Your task to perform on an android device: Search for sushi restaurants on Maps Image 0: 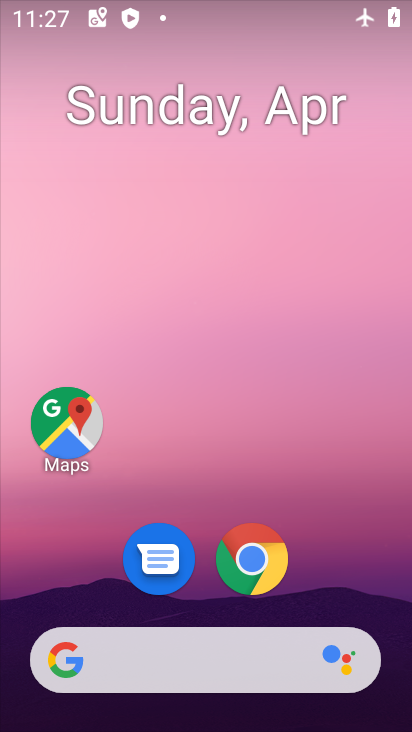
Step 0: drag from (319, 535) to (298, 107)
Your task to perform on an android device: Search for sushi restaurants on Maps Image 1: 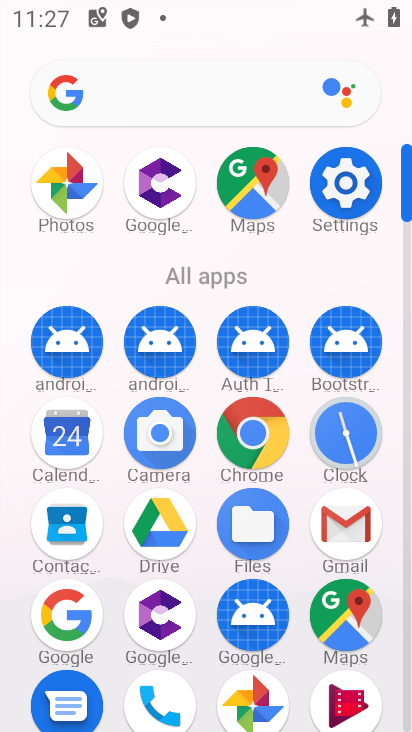
Step 1: click (244, 188)
Your task to perform on an android device: Search for sushi restaurants on Maps Image 2: 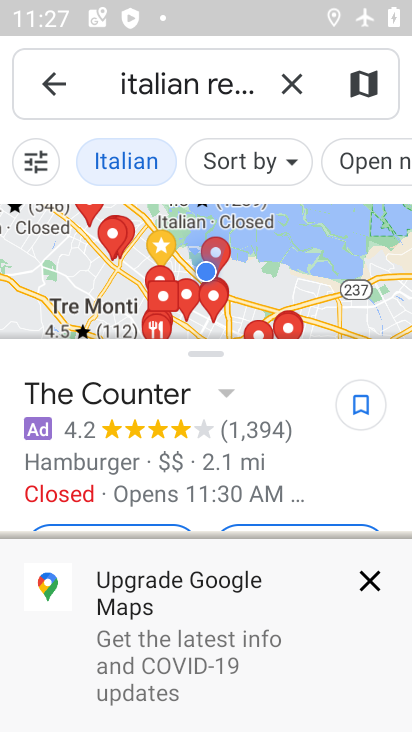
Step 2: click (282, 80)
Your task to perform on an android device: Search for sushi restaurants on Maps Image 3: 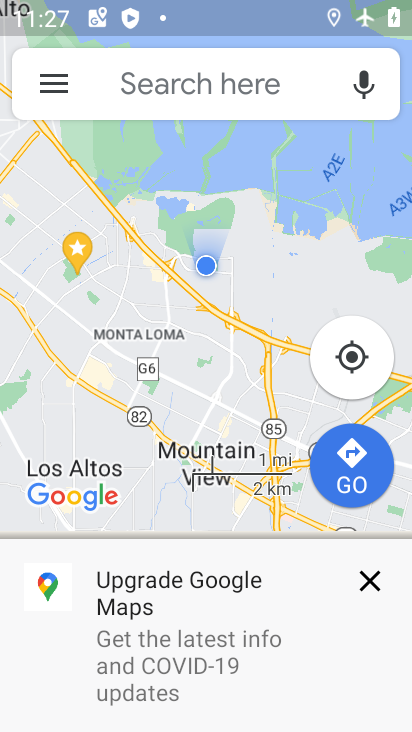
Step 3: click (236, 85)
Your task to perform on an android device: Search for sushi restaurants on Maps Image 4: 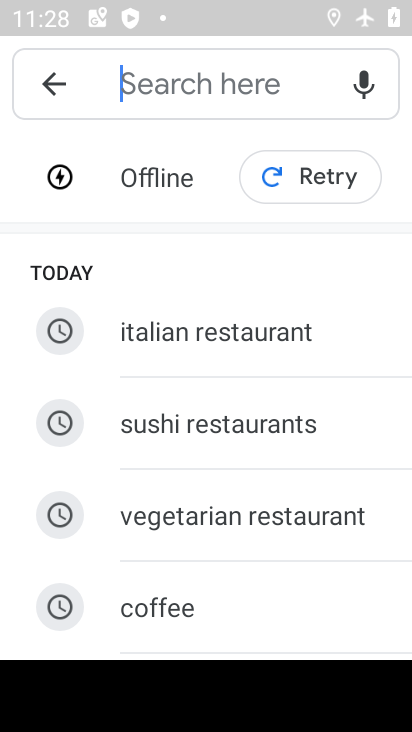
Step 4: type "sushi restaurants"
Your task to perform on an android device: Search for sushi restaurants on Maps Image 5: 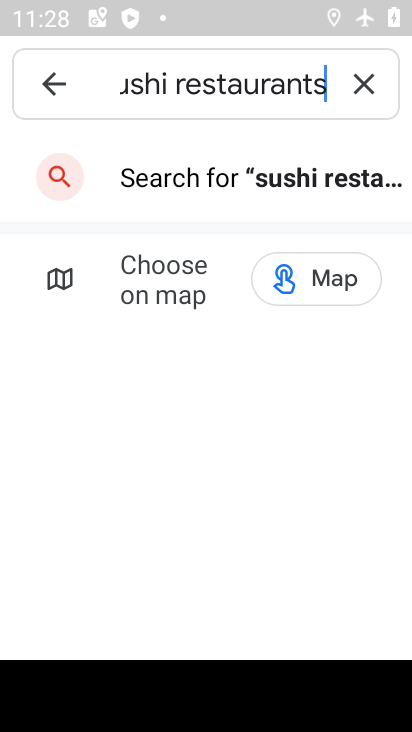
Step 5: click (299, 202)
Your task to perform on an android device: Search for sushi restaurants on Maps Image 6: 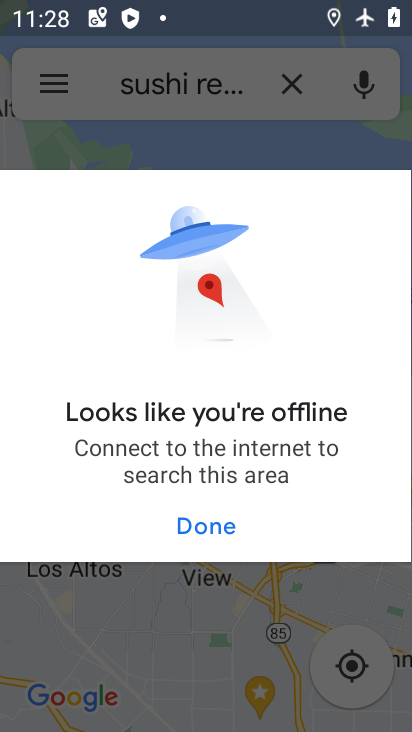
Step 6: task complete